Your task to perform on an android device: Turn off the flashlight Image 0: 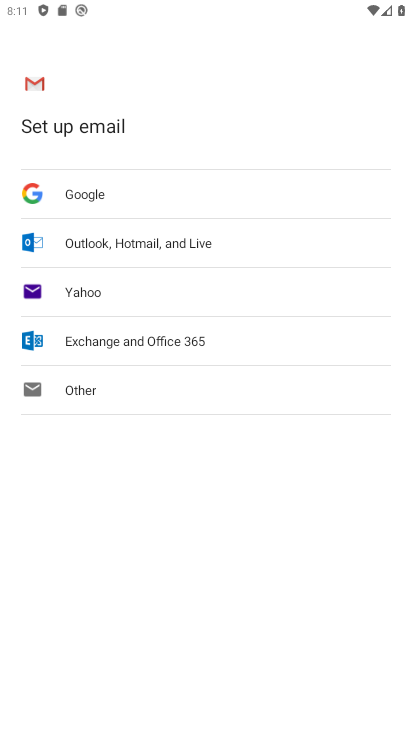
Step 0: press home button
Your task to perform on an android device: Turn off the flashlight Image 1: 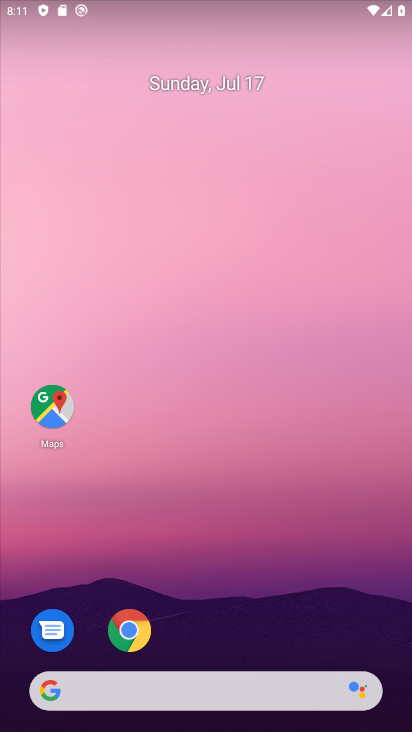
Step 1: task complete